Your task to perform on an android device: open sync settings in chrome Image 0: 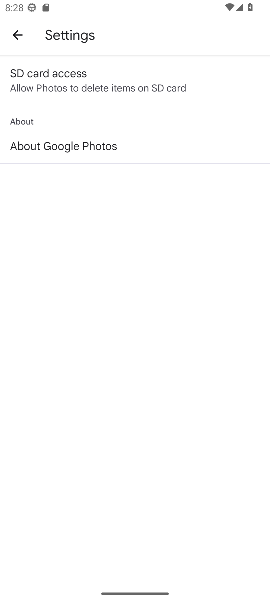
Step 0: press home button
Your task to perform on an android device: open sync settings in chrome Image 1: 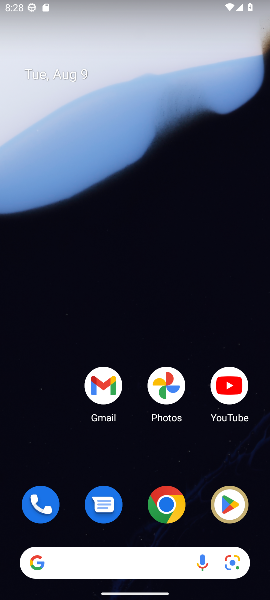
Step 1: click (164, 494)
Your task to perform on an android device: open sync settings in chrome Image 2: 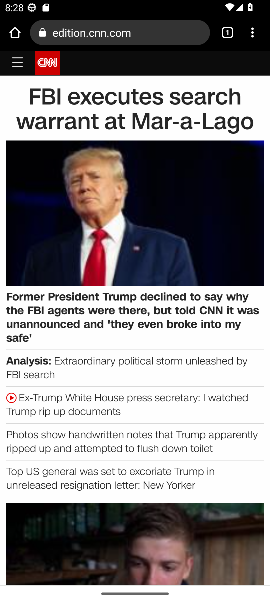
Step 2: click (246, 25)
Your task to perform on an android device: open sync settings in chrome Image 3: 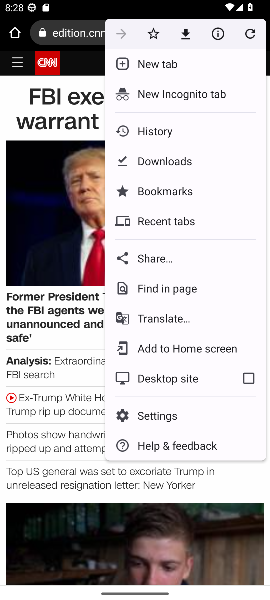
Step 3: click (157, 411)
Your task to perform on an android device: open sync settings in chrome Image 4: 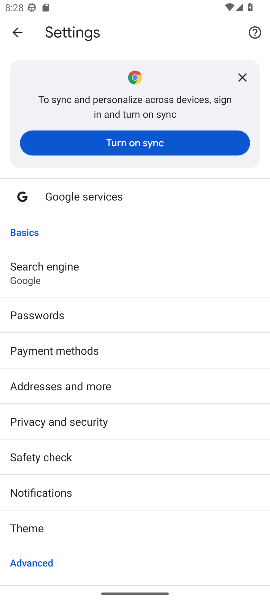
Step 4: click (139, 138)
Your task to perform on an android device: open sync settings in chrome Image 5: 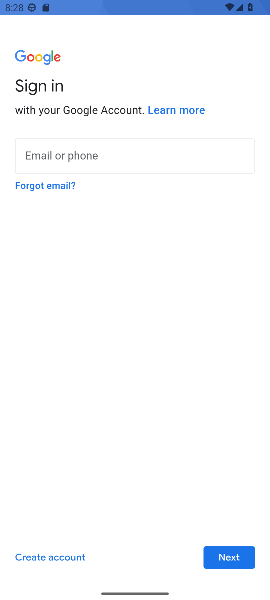
Step 5: task complete